Your task to perform on an android device: Open maps Image 0: 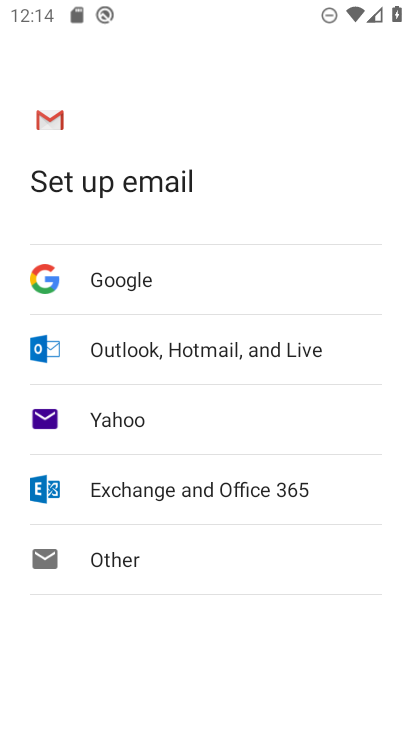
Step 0: press home button
Your task to perform on an android device: Open maps Image 1: 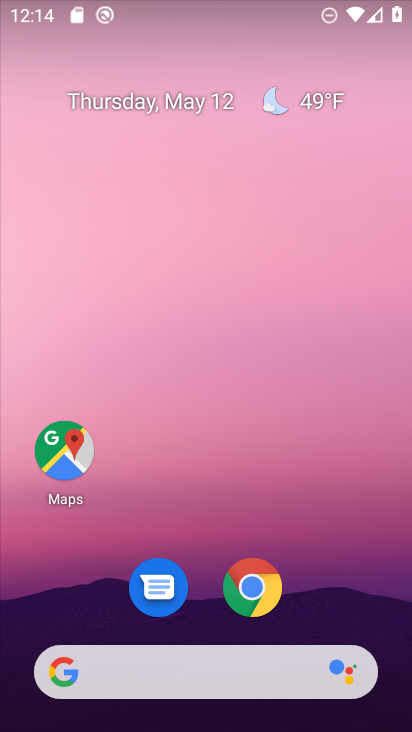
Step 1: click (63, 439)
Your task to perform on an android device: Open maps Image 2: 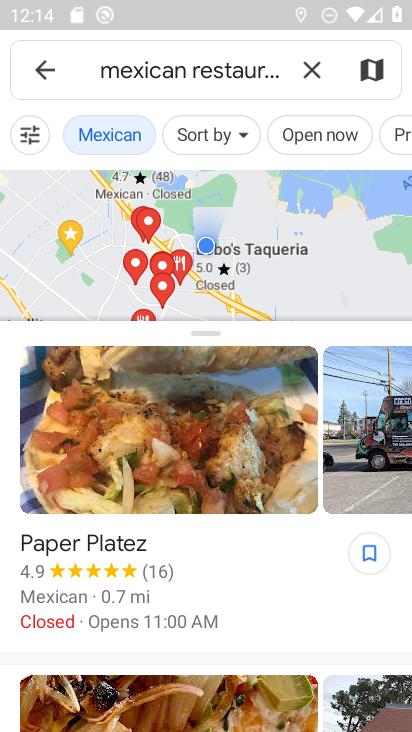
Step 2: task complete